Your task to perform on an android device: Clear all items from cart on ebay.com. Search for "asus zenbook" on ebay.com, select the first entry, and add it to the cart. Image 0: 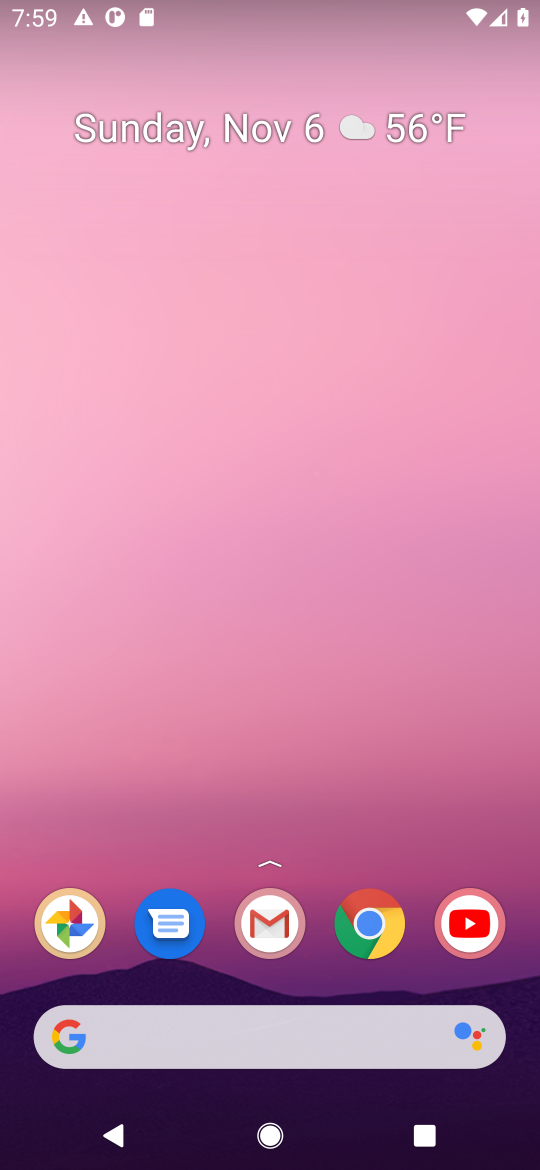
Step 0: click (380, 935)
Your task to perform on an android device: Clear all items from cart on ebay.com. Search for "asus zenbook" on ebay.com, select the first entry, and add it to the cart. Image 1: 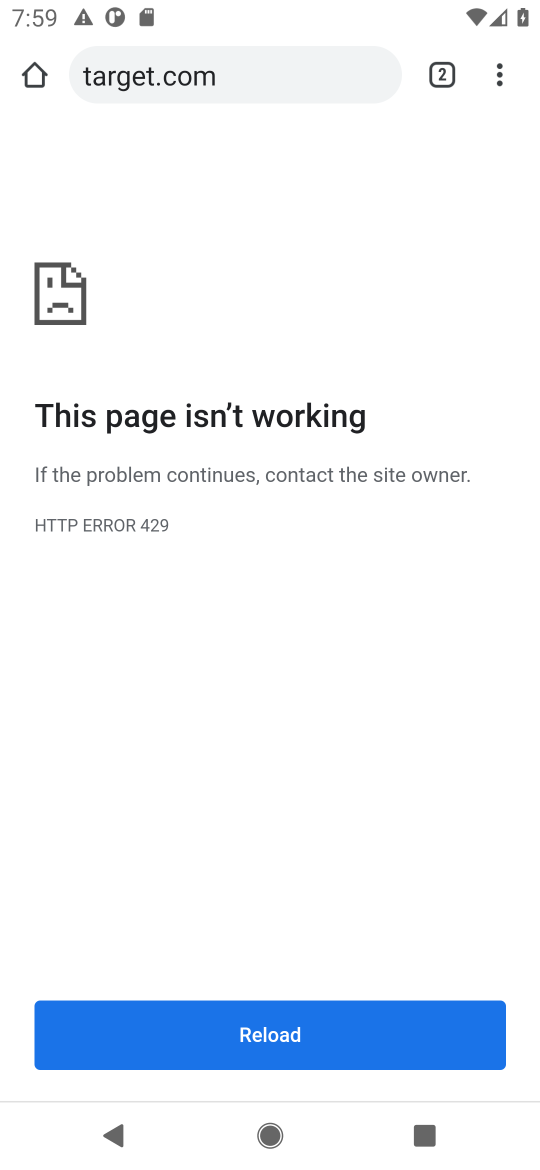
Step 1: click (194, 74)
Your task to perform on an android device: Clear all items from cart on ebay.com. Search for "asus zenbook" on ebay.com, select the first entry, and add it to the cart. Image 2: 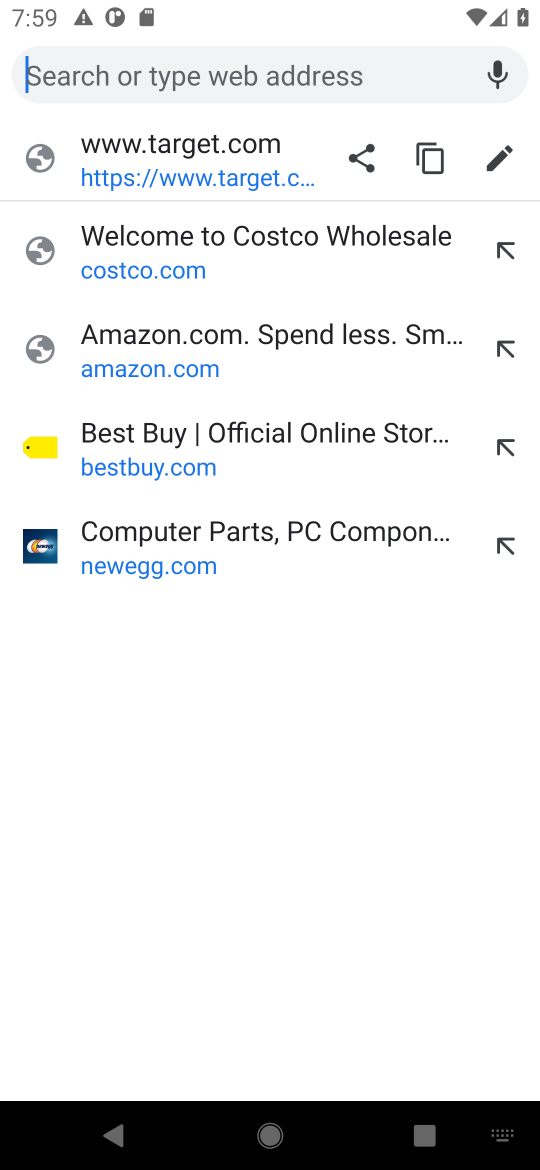
Step 2: type "ebay.com"
Your task to perform on an android device: Clear all items from cart on ebay.com. Search for "asus zenbook" on ebay.com, select the first entry, and add it to the cart. Image 3: 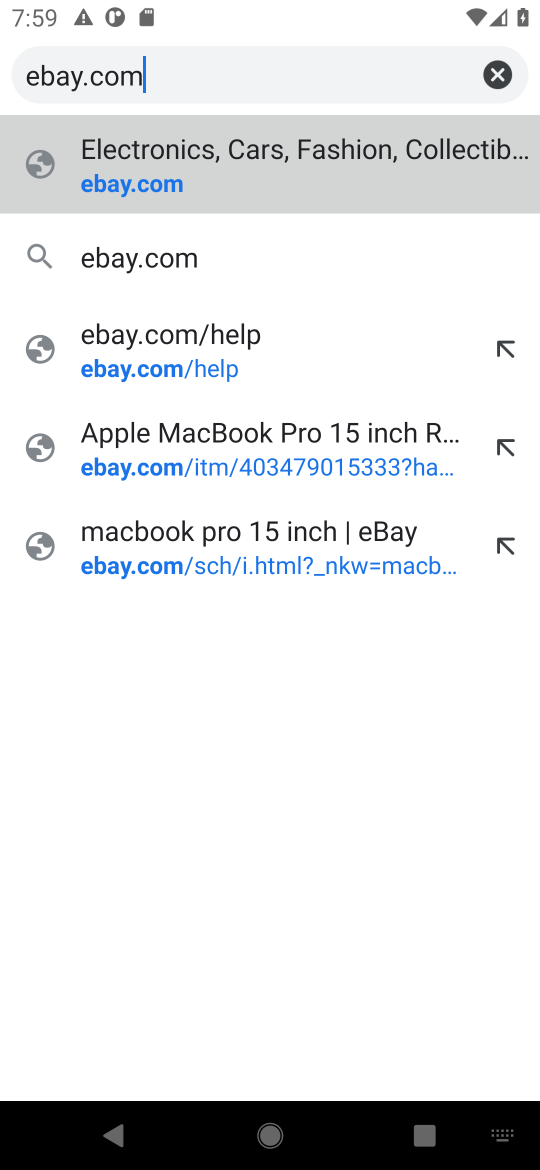
Step 3: click (102, 260)
Your task to perform on an android device: Clear all items from cart on ebay.com. Search for "asus zenbook" on ebay.com, select the first entry, and add it to the cart. Image 4: 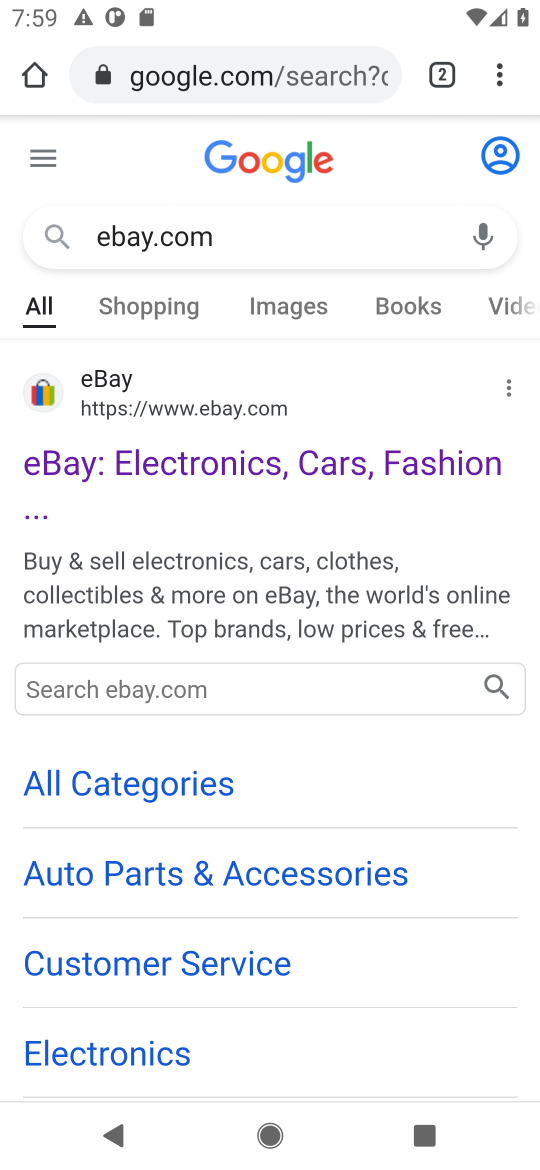
Step 4: click (160, 456)
Your task to perform on an android device: Clear all items from cart on ebay.com. Search for "asus zenbook" on ebay.com, select the first entry, and add it to the cart. Image 5: 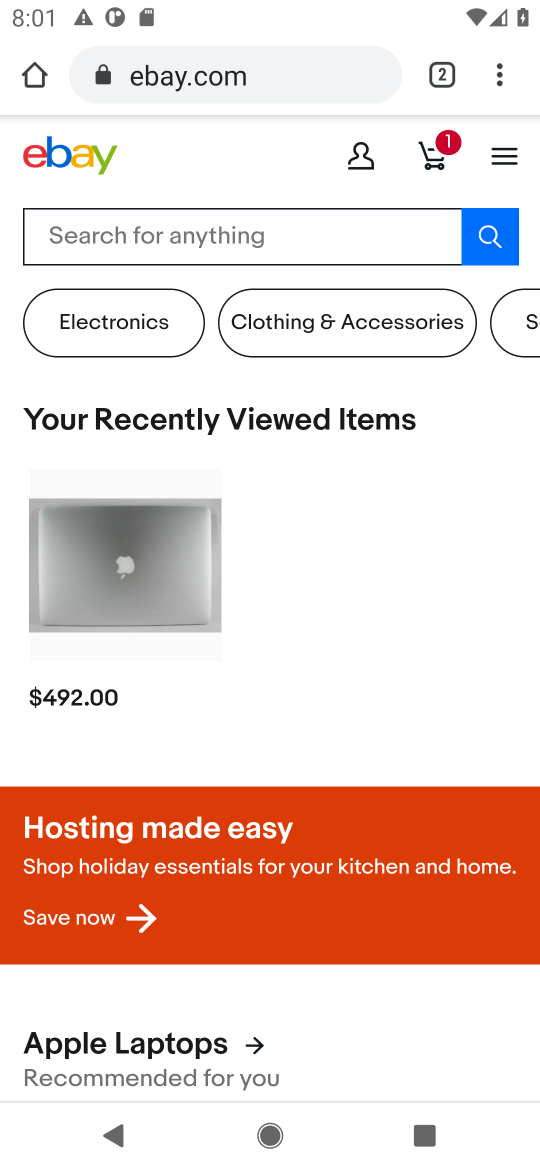
Step 5: click (430, 159)
Your task to perform on an android device: Clear all items from cart on ebay.com. Search for "asus zenbook" on ebay.com, select the first entry, and add it to the cart. Image 6: 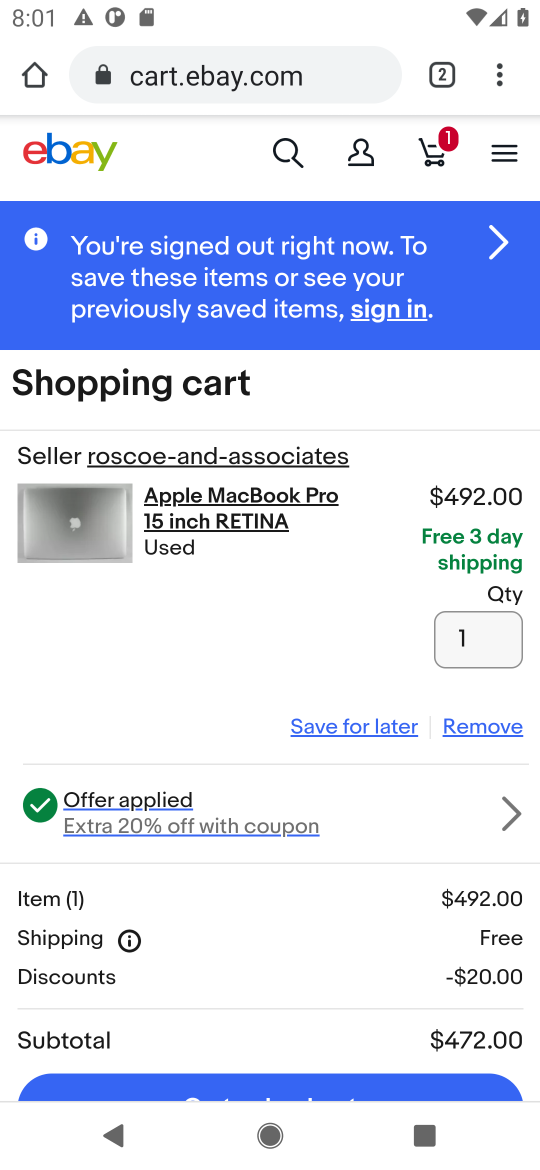
Step 6: click (483, 734)
Your task to perform on an android device: Clear all items from cart on ebay.com. Search for "asus zenbook" on ebay.com, select the first entry, and add it to the cart. Image 7: 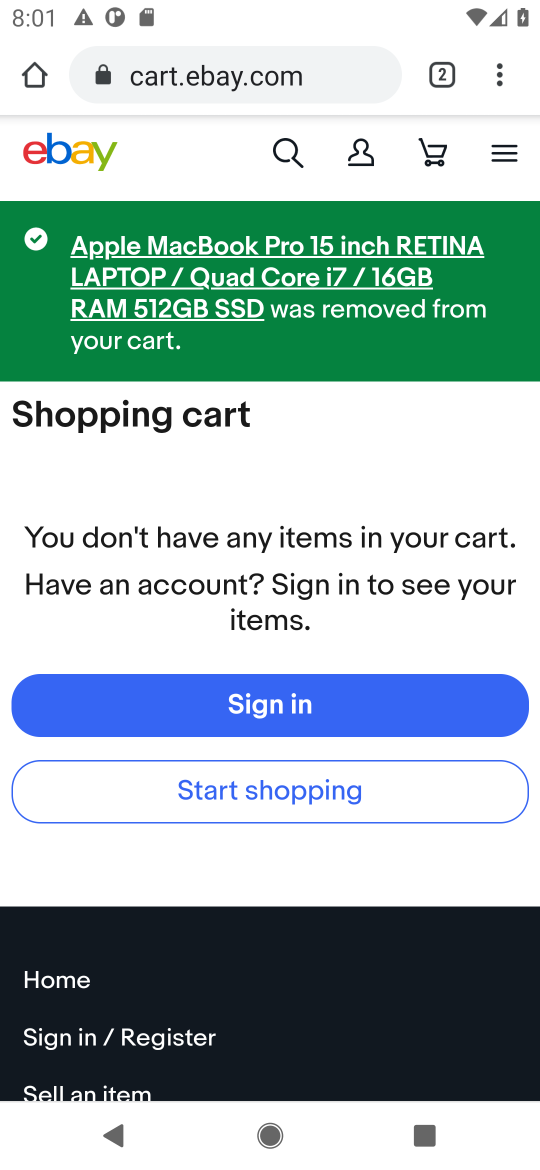
Step 7: click (284, 152)
Your task to perform on an android device: Clear all items from cart on ebay.com. Search for "asus zenbook" on ebay.com, select the first entry, and add it to the cart. Image 8: 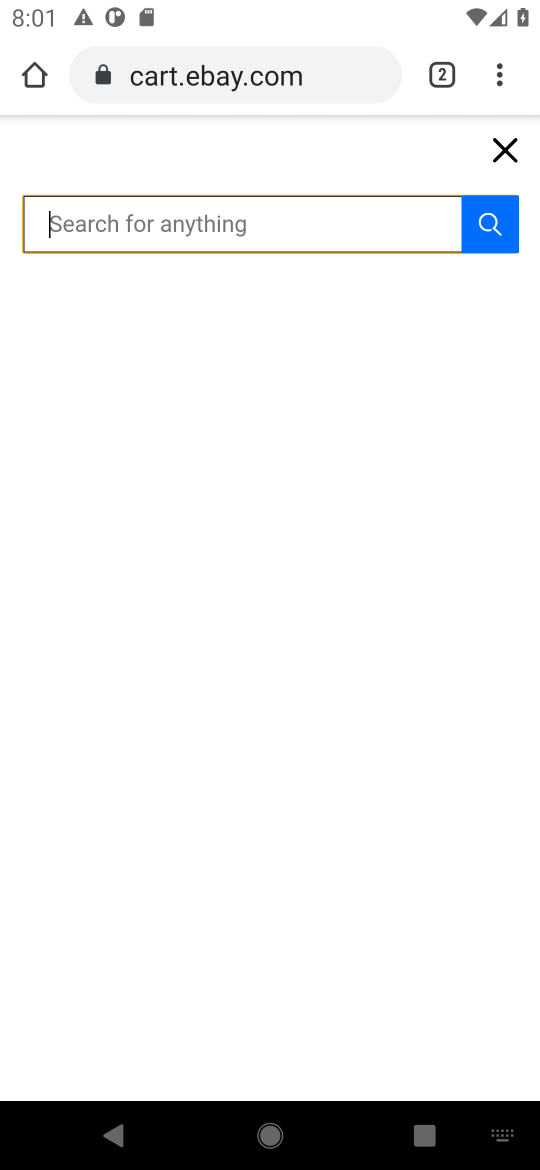
Step 8: type "asus zenbook"
Your task to perform on an android device: Clear all items from cart on ebay.com. Search for "asus zenbook" on ebay.com, select the first entry, and add it to the cart. Image 9: 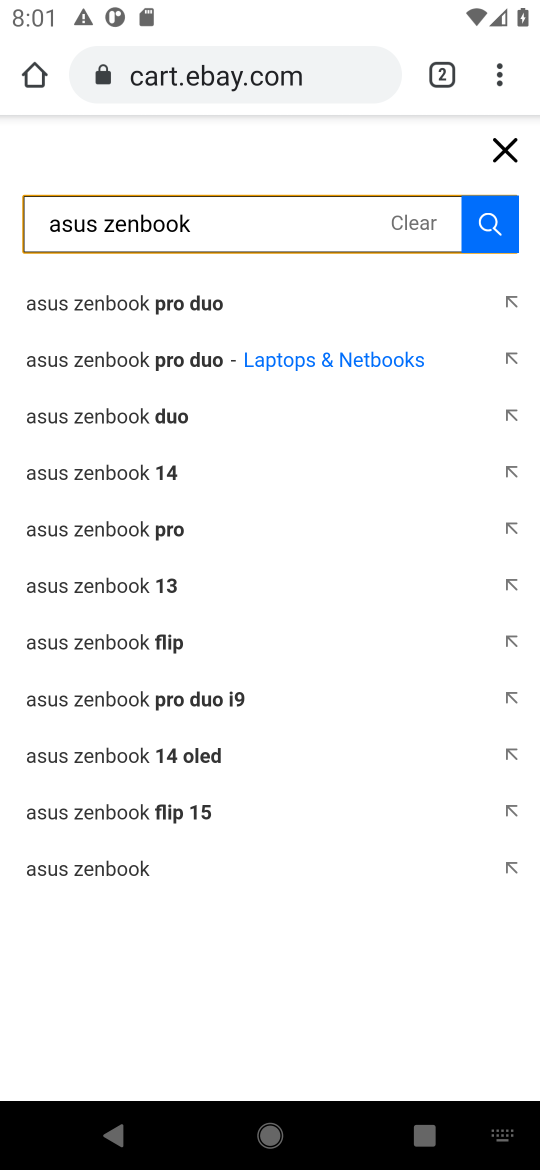
Step 9: click (481, 224)
Your task to perform on an android device: Clear all items from cart on ebay.com. Search for "asus zenbook" on ebay.com, select the first entry, and add it to the cart. Image 10: 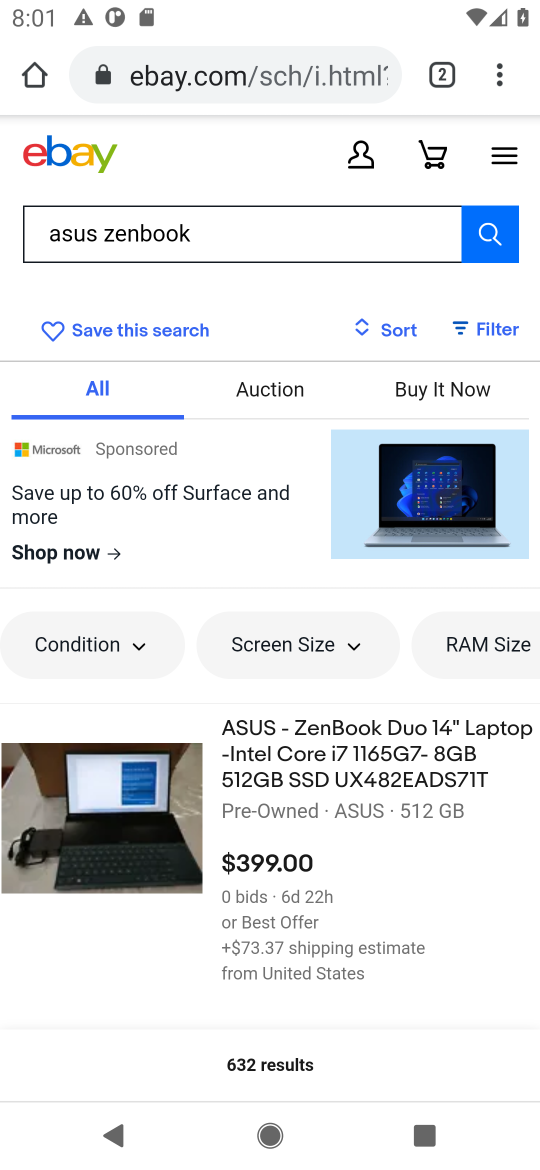
Step 10: drag from (318, 821) to (329, 529)
Your task to perform on an android device: Clear all items from cart on ebay.com. Search for "asus zenbook" on ebay.com, select the first entry, and add it to the cart. Image 11: 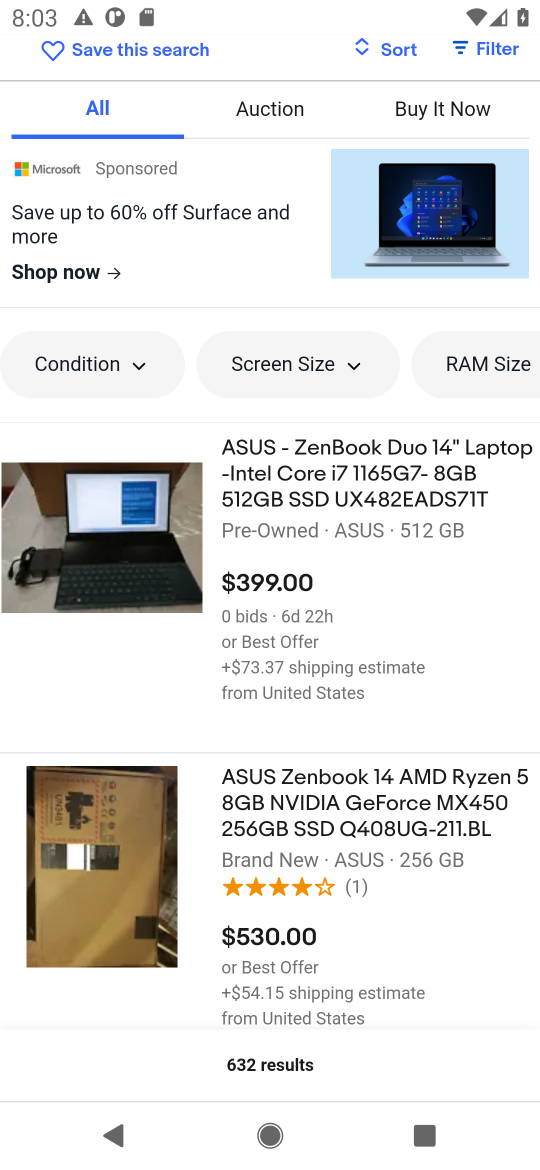
Step 11: click (242, 551)
Your task to perform on an android device: Clear all items from cart on ebay.com. Search for "asus zenbook" on ebay.com, select the first entry, and add it to the cart. Image 12: 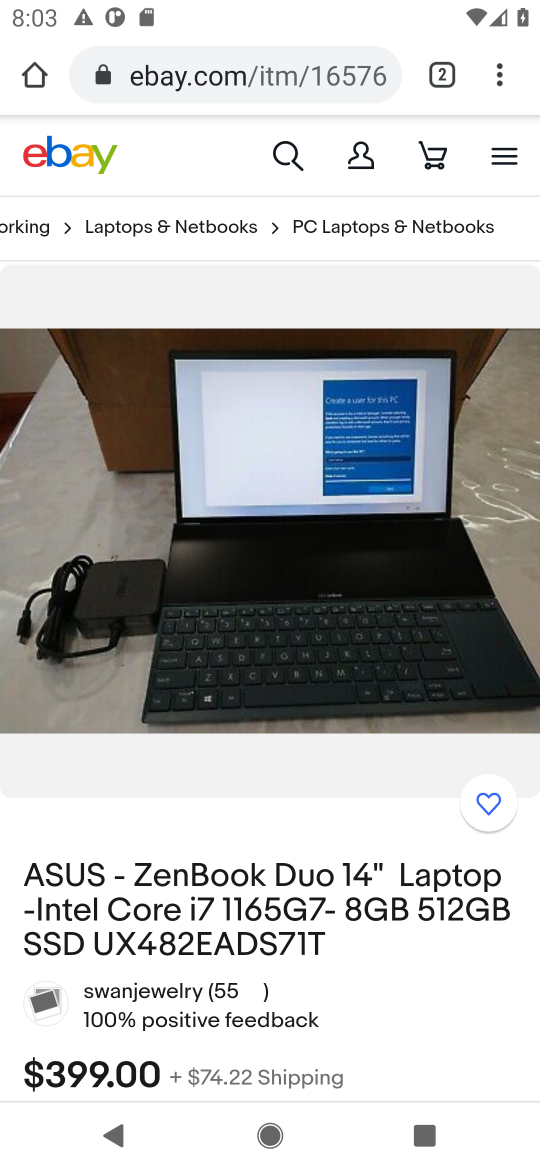
Step 12: task complete